Your task to perform on an android device: delete a single message in the gmail app Image 0: 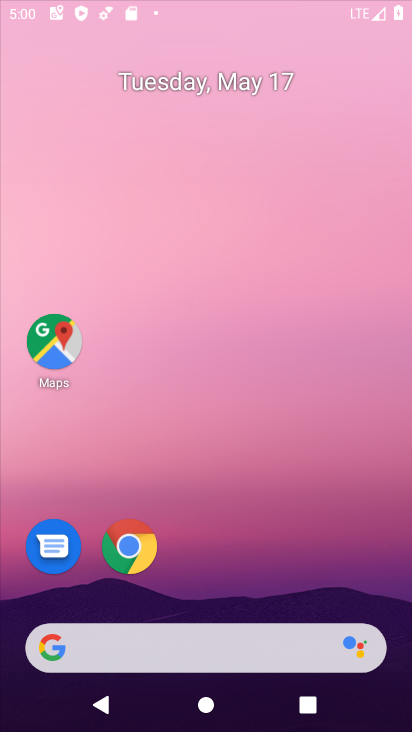
Step 0: drag from (252, 357) to (278, 0)
Your task to perform on an android device: delete a single message in the gmail app Image 1: 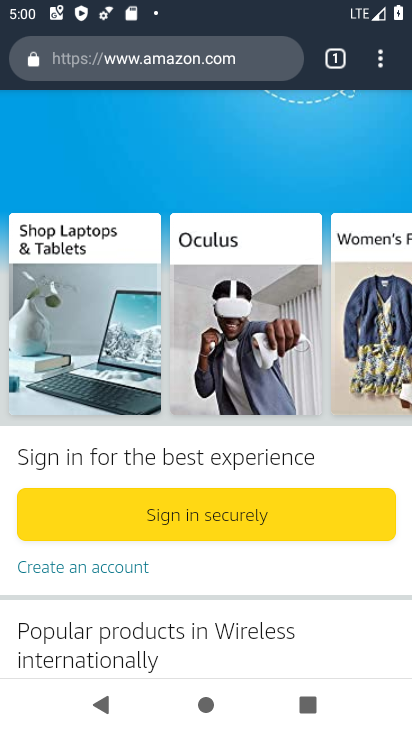
Step 1: press home button
Your task to perform on an android device: delete a single message in the gmail app Image 2: 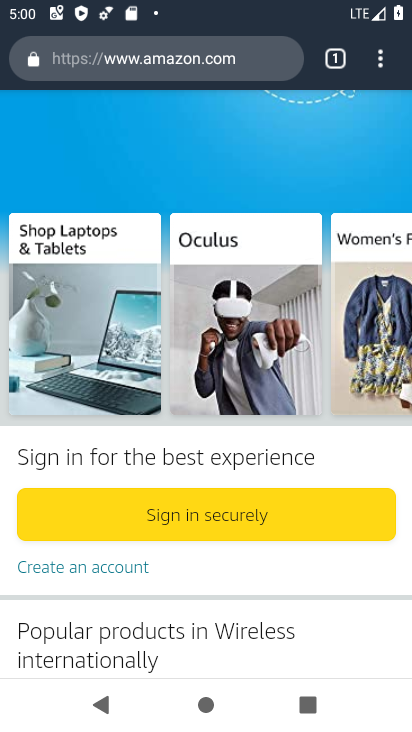
Step 2: drag from (278, 0) to (401, 483)
Your task to perform on an android device: delete a single message in the gmail app Image 3: 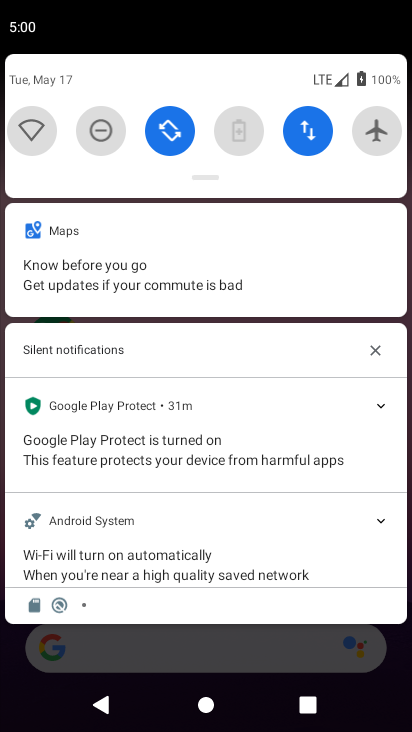
Step 3: drag from (234, 598) to (255, 100)
Your task to perform on an android device: delete a single message in the gmail app Image 4: 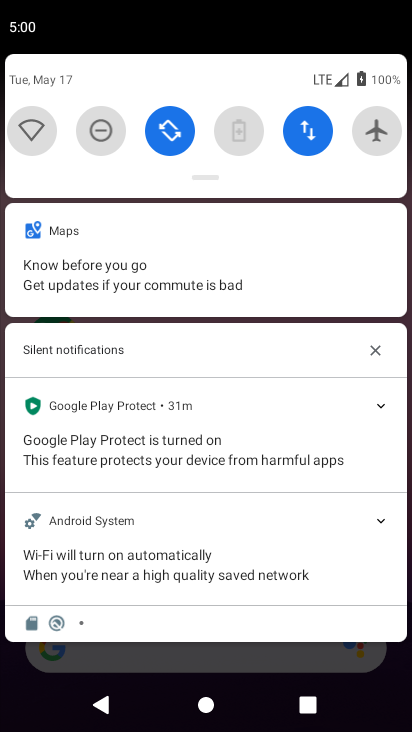
Step 4: press home button
Your task to perform on an android device: delete a single message in the gmail app Image 5: 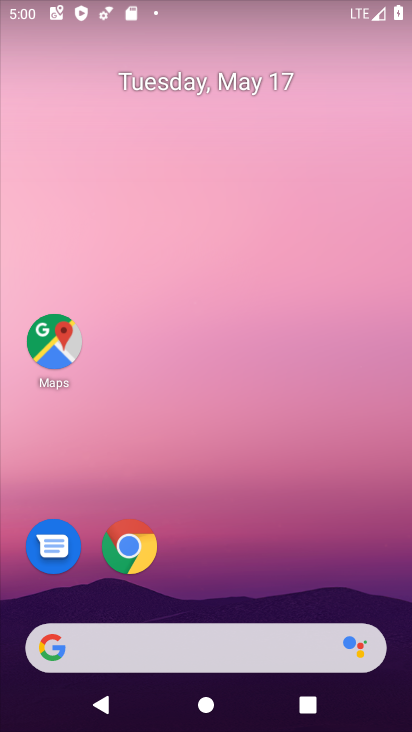
Step 5: drag from (236, 571) to (277, 4)
Your task to perform on an android device: delete a single message in the gmail app Image 6: 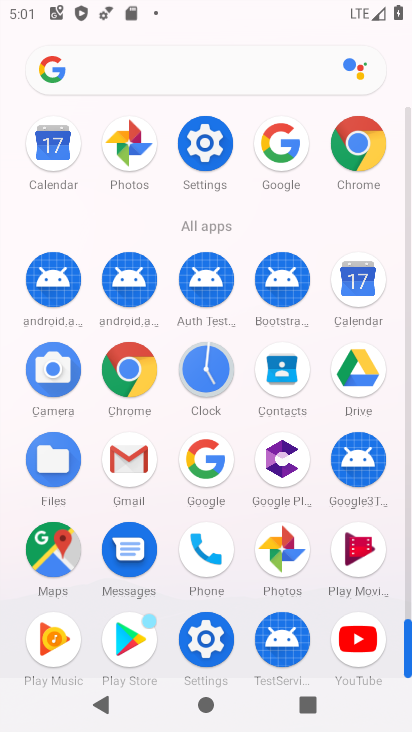
Step 6: click (137, 480)
Your task to perform on an android device: delete a single message in the gmail app Image 7: 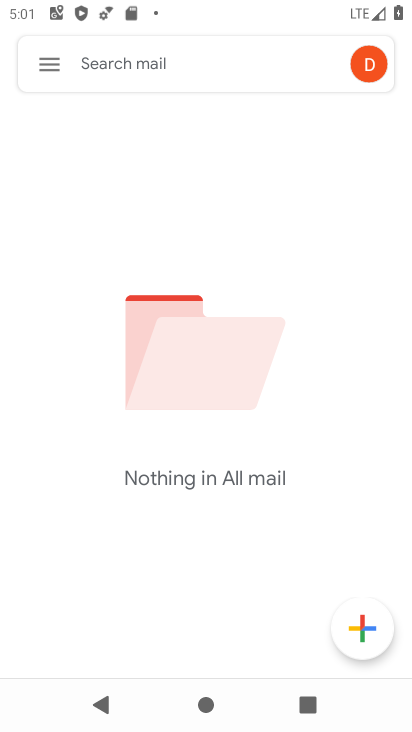
Step 7: click (51, 66)
Your task to perform on an android device: delete a single message in the gmail app Image 8: 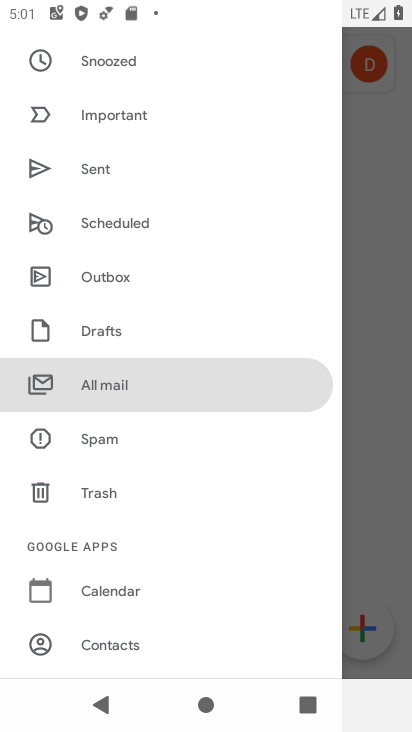
Step 8: task complete